Your task to perform on an android device: toggle translation in the chrome app Image 0: 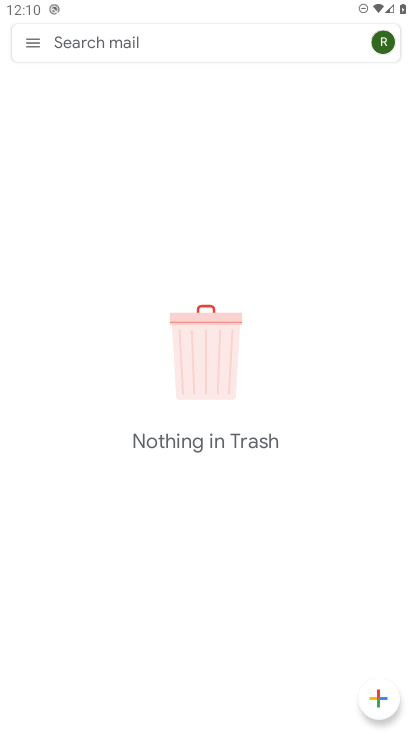
Step 0: press home button
Your task to perform on an android device: toggle translation in the chrome app Image 1: 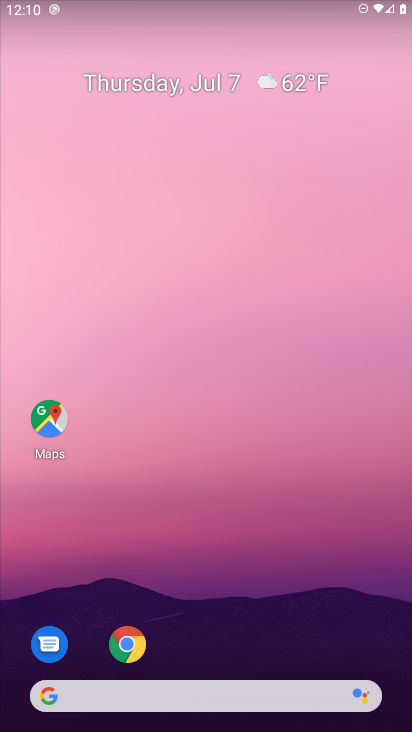
Step 1: drag from (212, 610) to (227, 108)
Your task to perform on an android device: toggle translation in the chrome app Image 2: 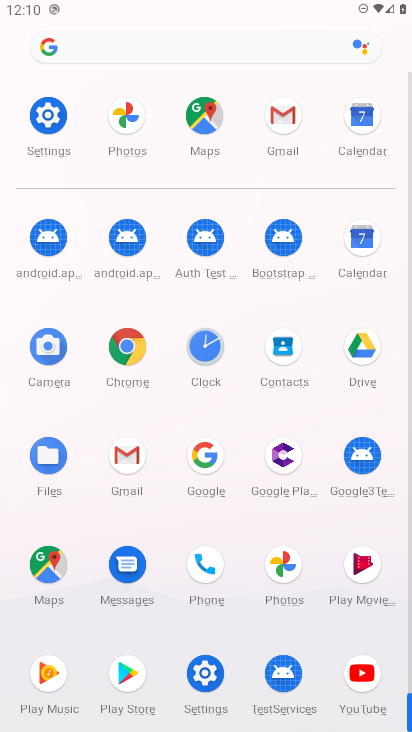
Step 2: click (124, 337)
Your task to perform on an android device: toggle translation in the chrome app Image 3: 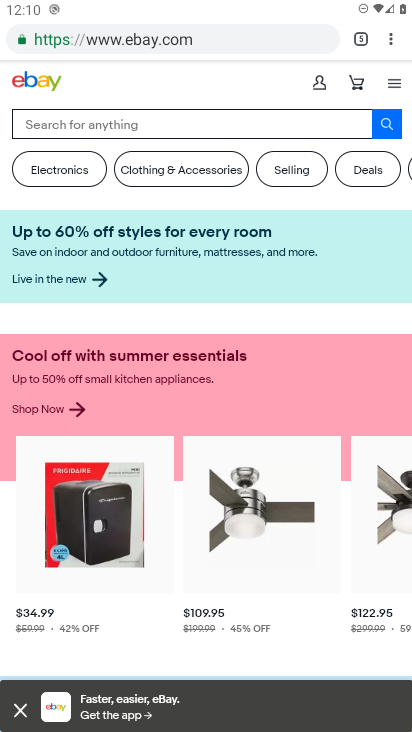
Step 3: click (390, 36)
Your task to perform on an android device: toggle translation in the chrome app Image 4: 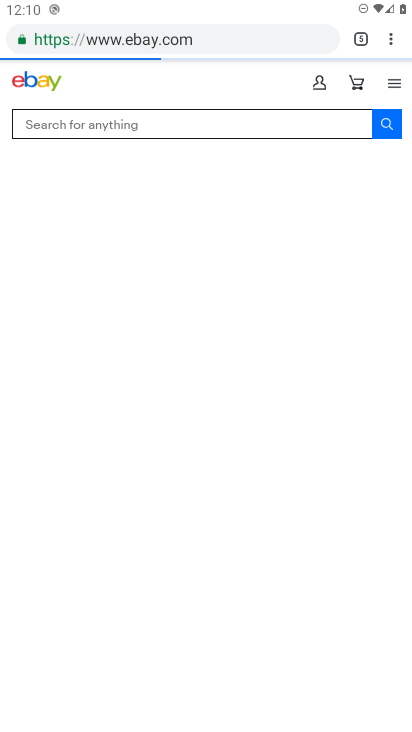
Step 4: drag from (390, 36) to (271, 462)
Your task to perform on an android device: toggle translation in the chrome app Image 5: 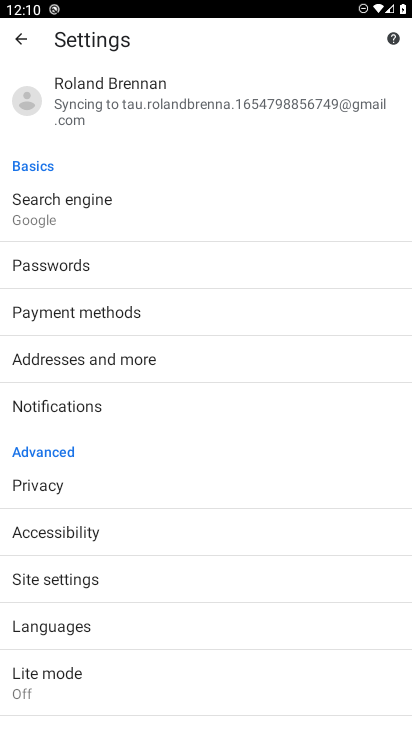
Step 5: drag from (136, 639) to (183, 258)
Your task to perform on an android device: toggle translation in the chrome app Image 6: 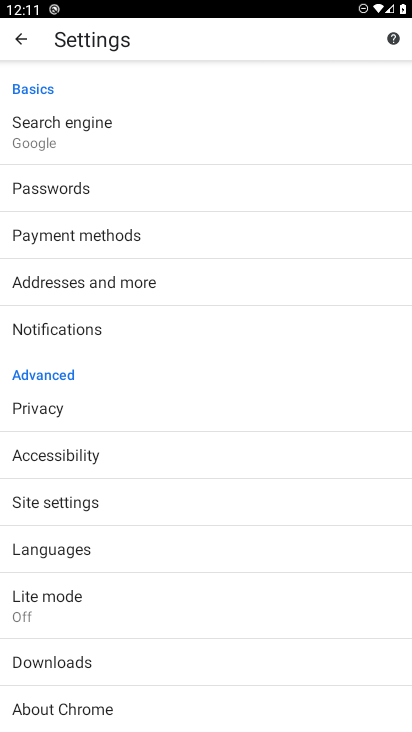
Step 6: drag from (161, 380) to (209, 114)
Your task to perform on an android device: toggle translation in the chrome app Image 7: 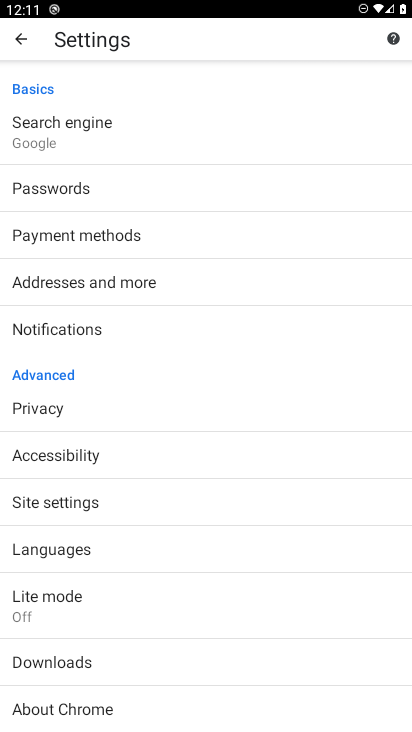
Step 7: click (36, 538)
Your task to perform on an android device: toggle translation in the chrome app Image 8: 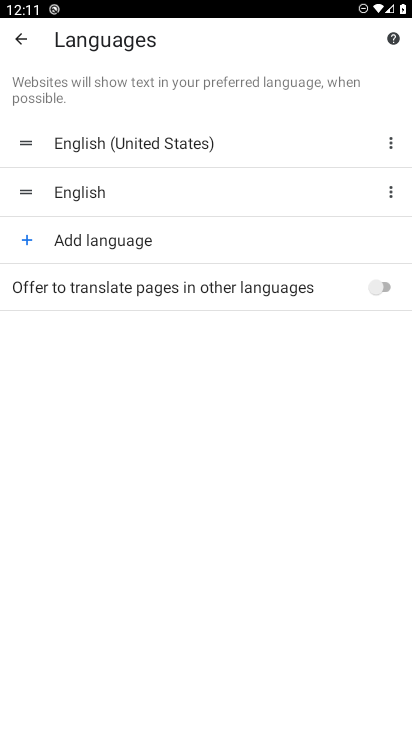
Step 8: click (383, 287)
Your task to perform on an android device: toggle translation in the chrome app Image 9: 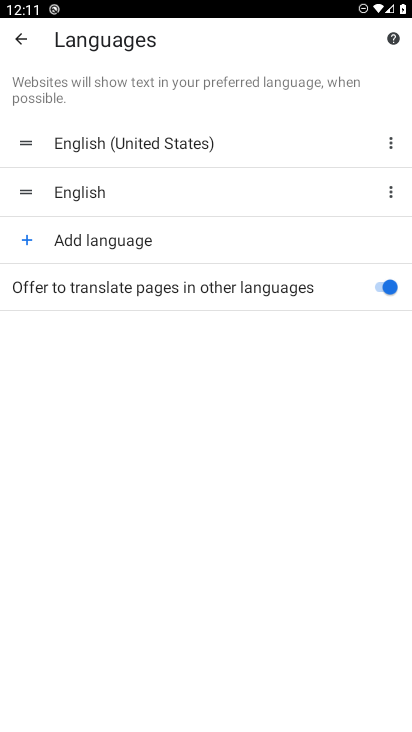
Step 9: task complete